Your task to perform on an android device: turn off location history Image 0: 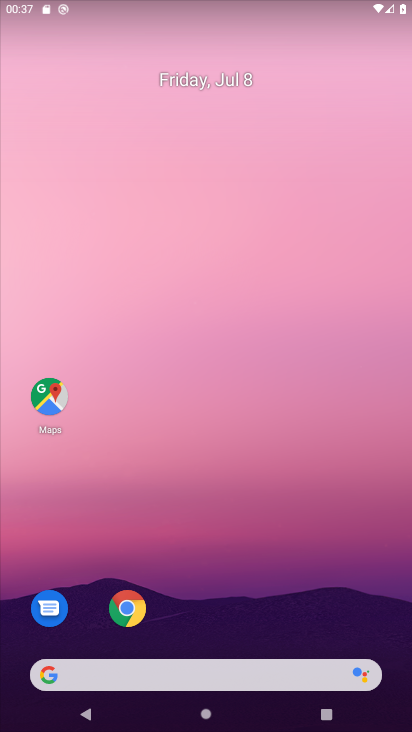
Step 0: click (262, 149)
Your task to perform on an android device: turn off location history Image 1: 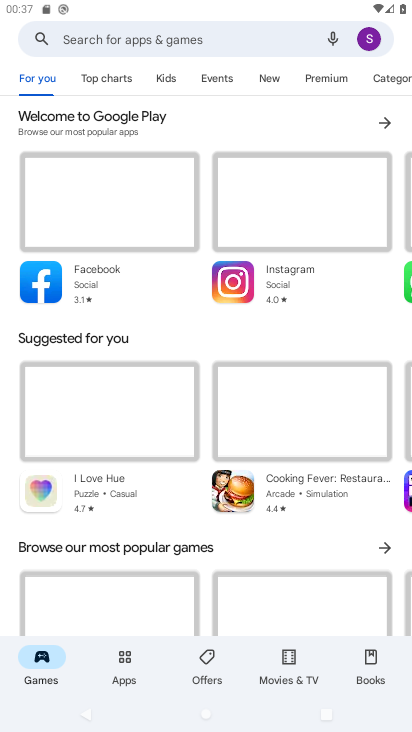
Step 1: press home button
Your task to perform on an android device: turn off location history Image 2: 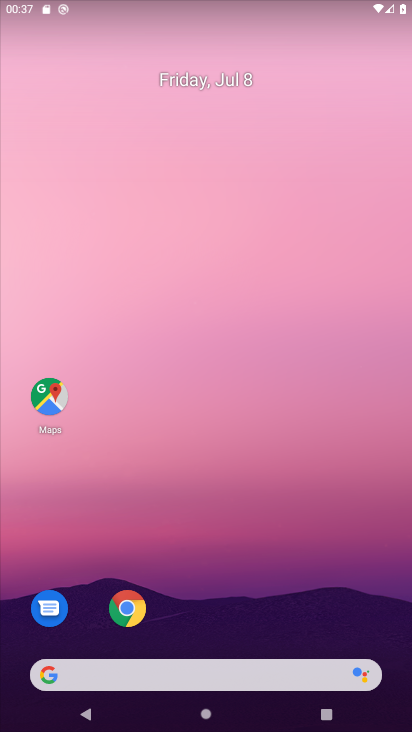
Step 2: drag from (229, 592) to (263, 234)
Your task to perform on an android device: turn off location history Image 3: 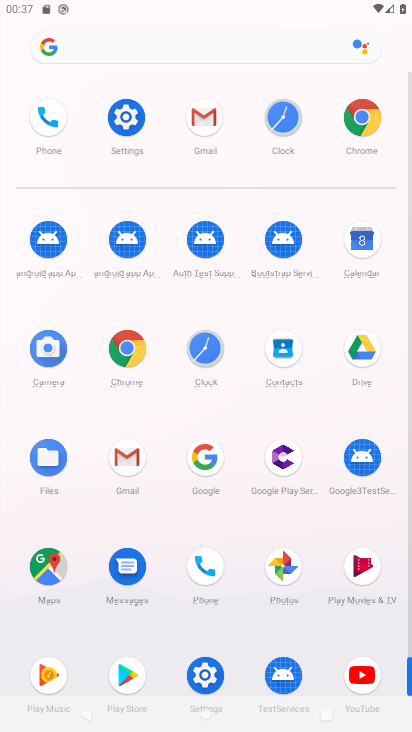
Step 3: click (124, 116)
Your task to perform on an android device: turn off location history Image 4: 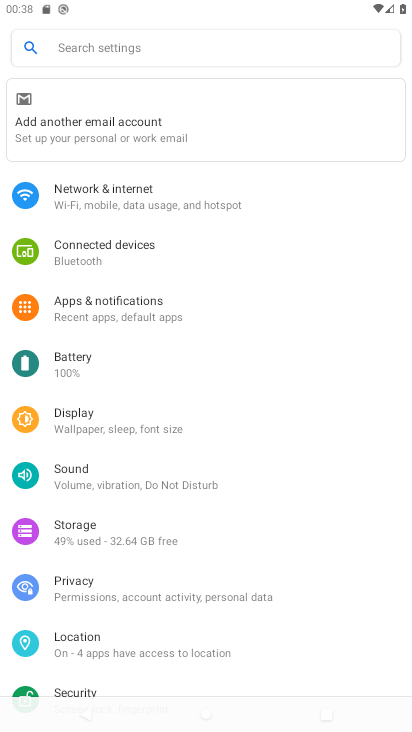
Step 4: drag from (121, 612) to (150, 376)
Your task to perform on an android device: turn off location history Image 5: 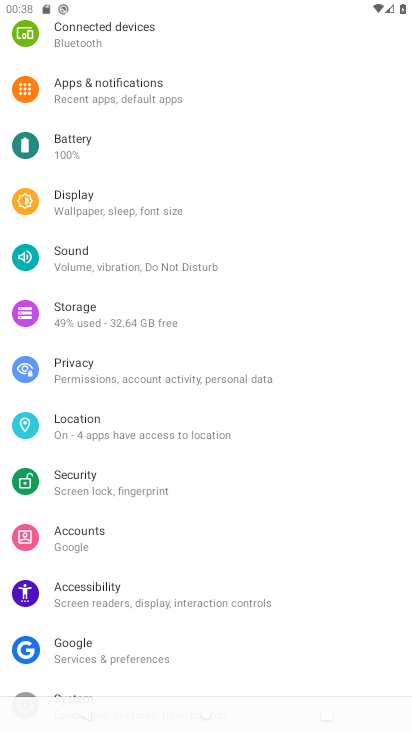
Step 5: click (113, 432)
Your task to perform on an android device: turn off location history Image 6: 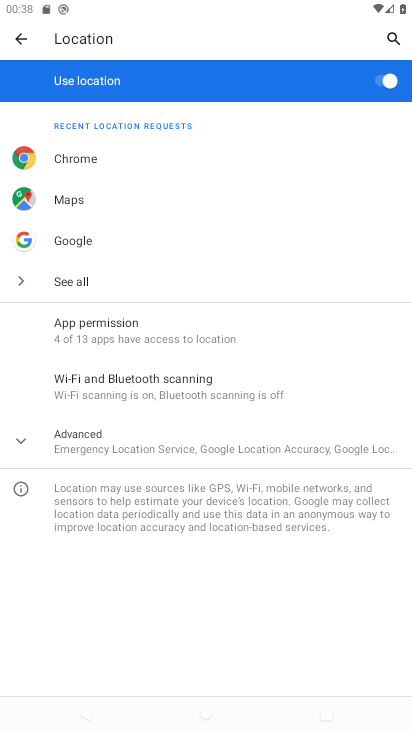
Step 6: click (170, 444)
Your task to perform on an android device: turn off location history Image 7: 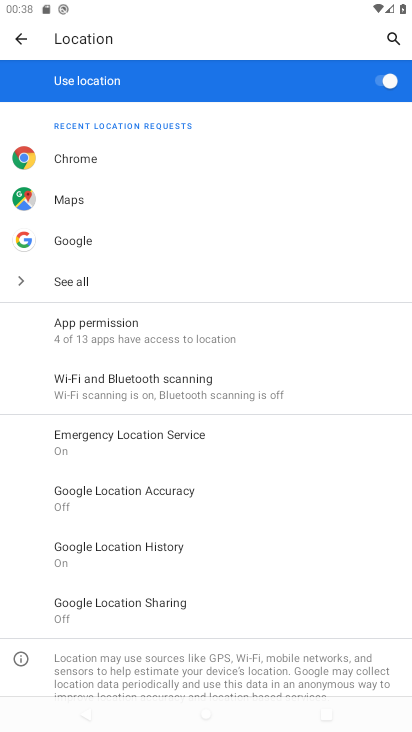
Step 7: click (158, 542)
Your task to perform on an android device: turn off location history Image 8: 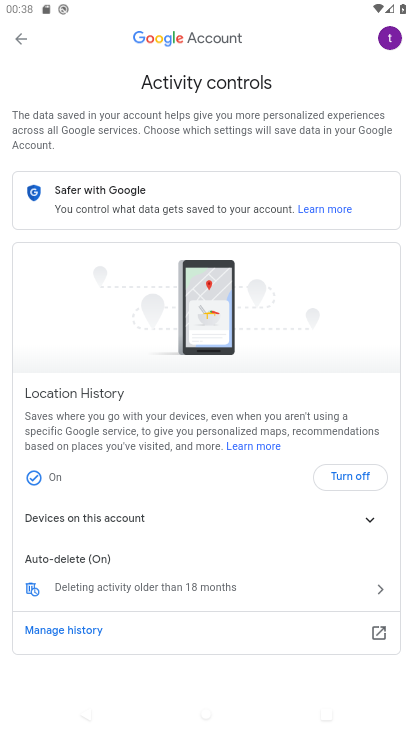
Step 8: click (335, 468)
Your task to perform on an android device: turn off location history Image 9: 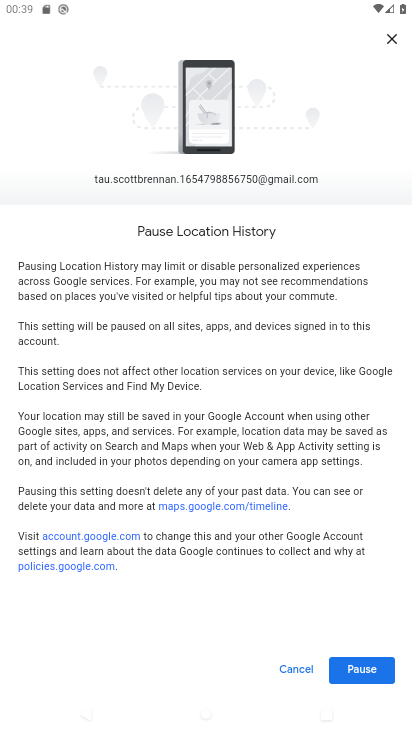
Step 9: click (304, 669)
Your task to perform on an android device: turn off location history Image 10: 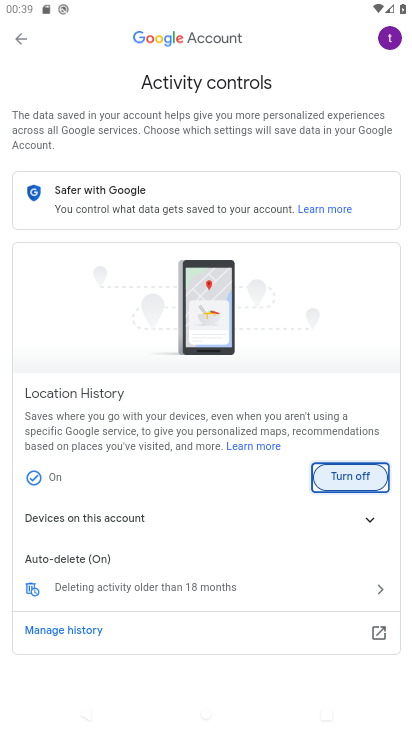
Step 10: task complete